Your task to perform on an android device: Go to Google maps Image 0: 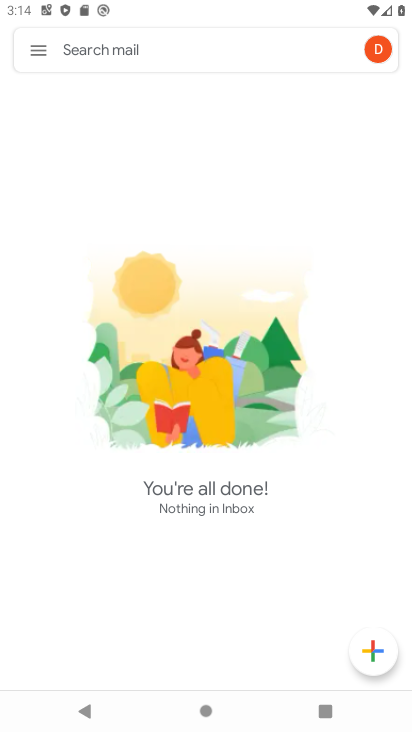
Step 0: press home button
Your task to perform on an android device: Go to Google maps Image 1: 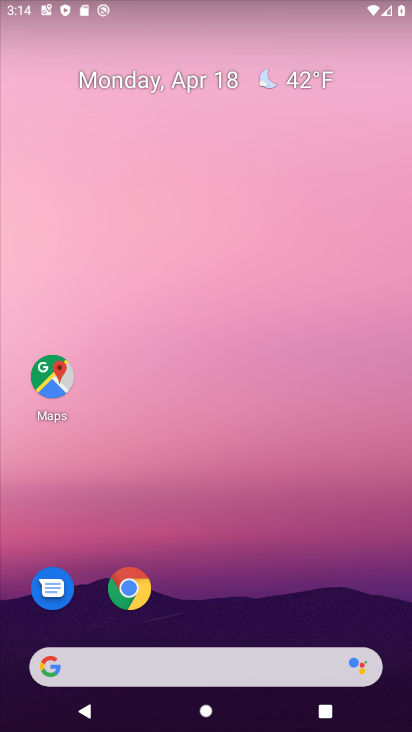
Step 1: click (44, 376)
Your task to perform on an android device: Go to Google maps Image 2: 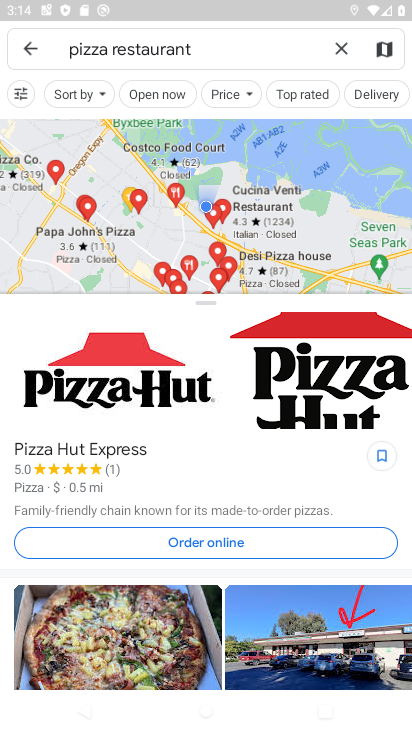
Step 2: task complete